Your task to perform on an android device: open app "Google Maps" Image 0: 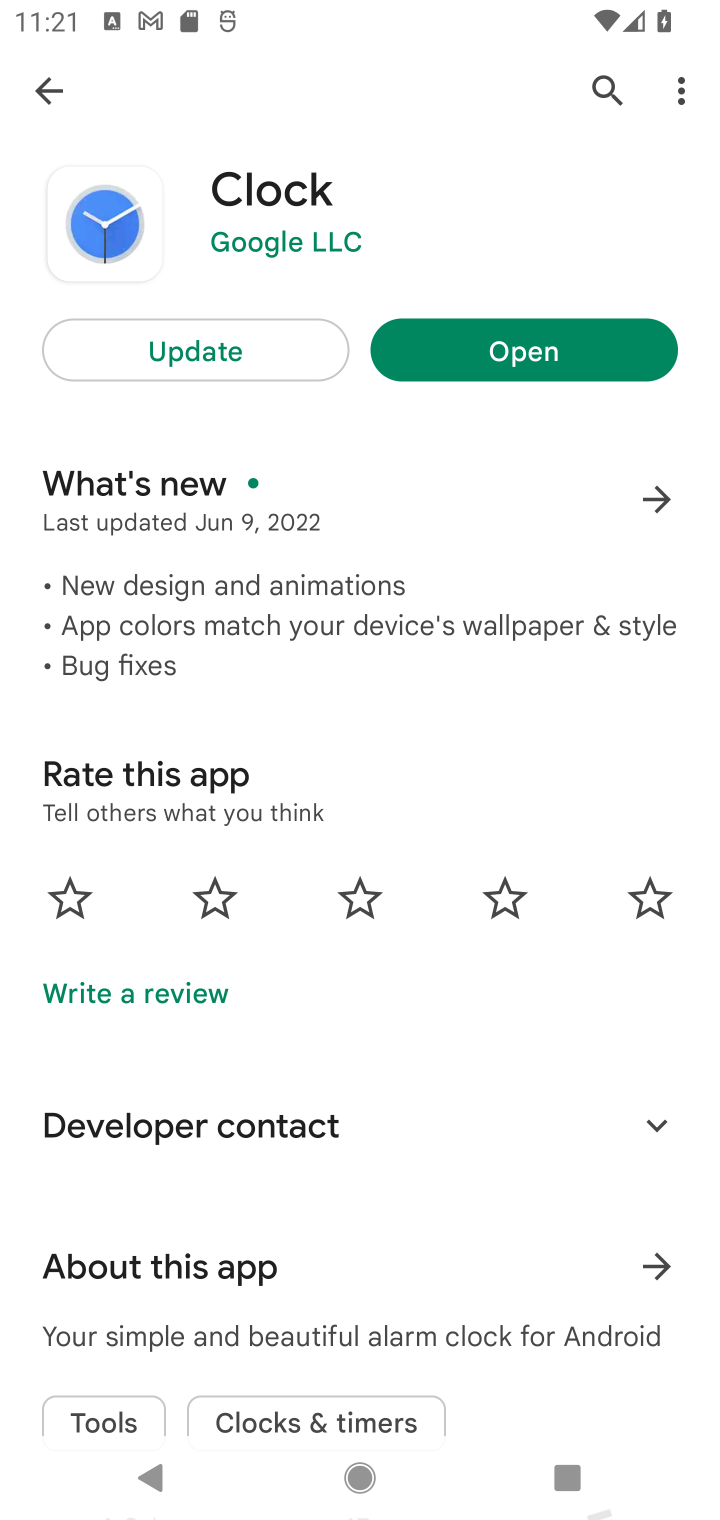
Step 0: press home button
Your task to perform on an android device: open app "Google Maps" Image 1: 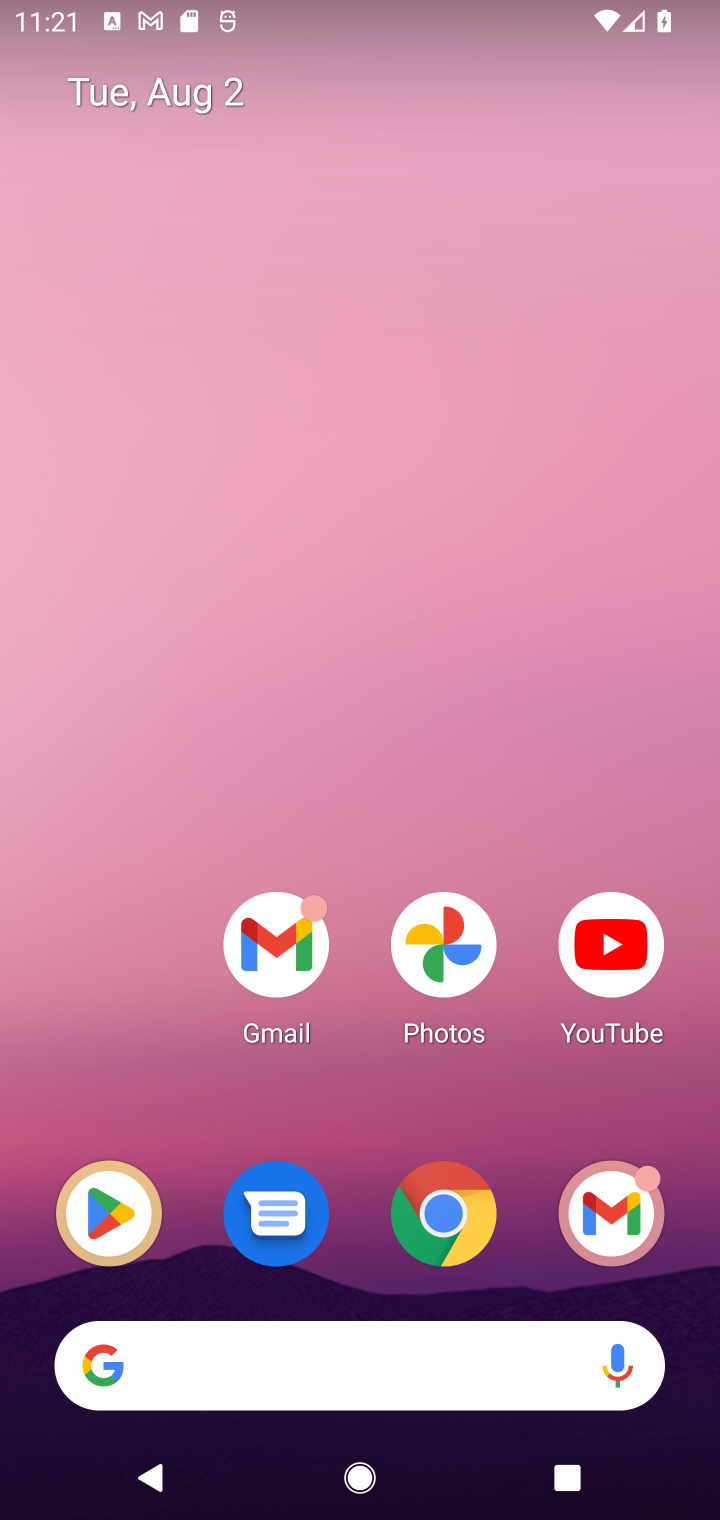
Step 1: drag from (176, 1198) to (196, 437)
Your task to perform on an android device: open app "Google Maps" Image 2: 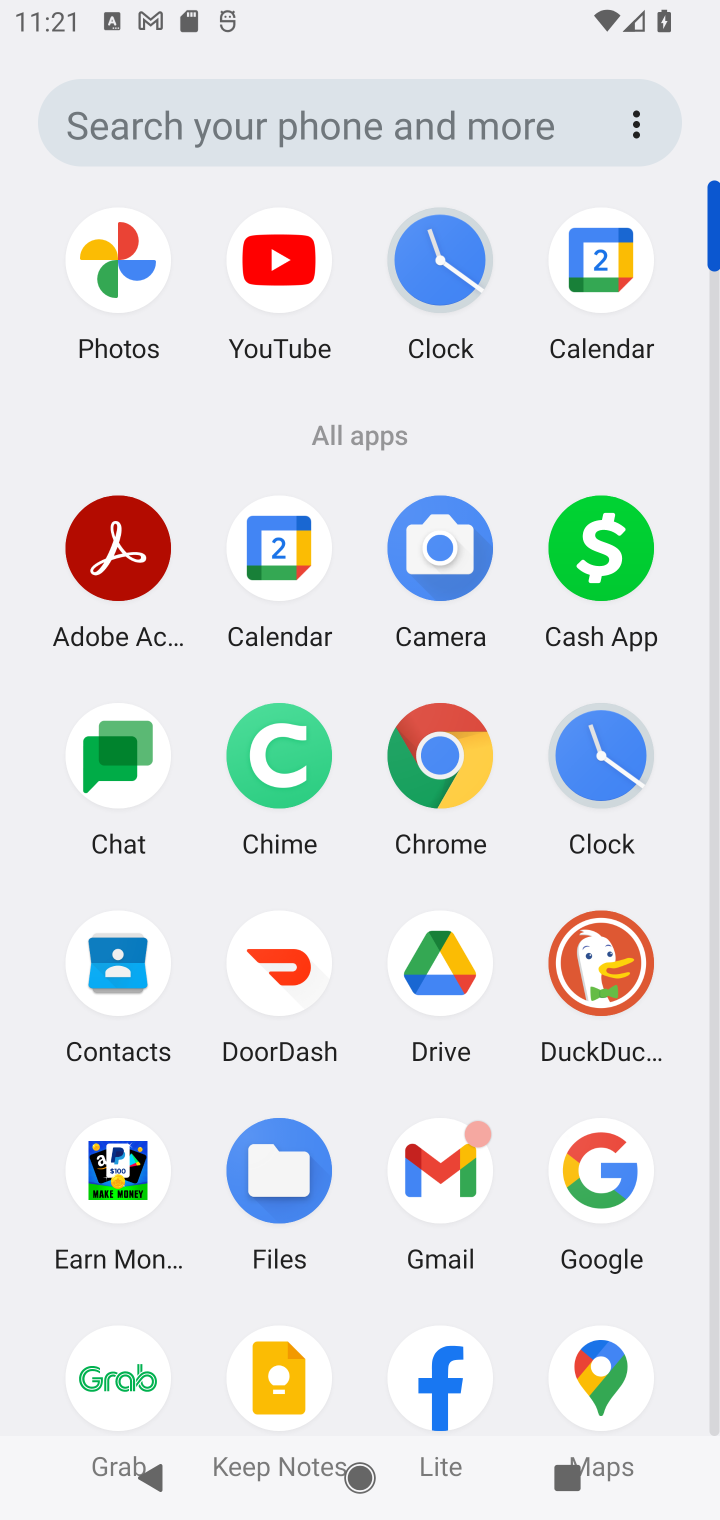
Step 2: click (363, 1263)
Your task to perform on an android device: open app "Google Maps" Image 3: 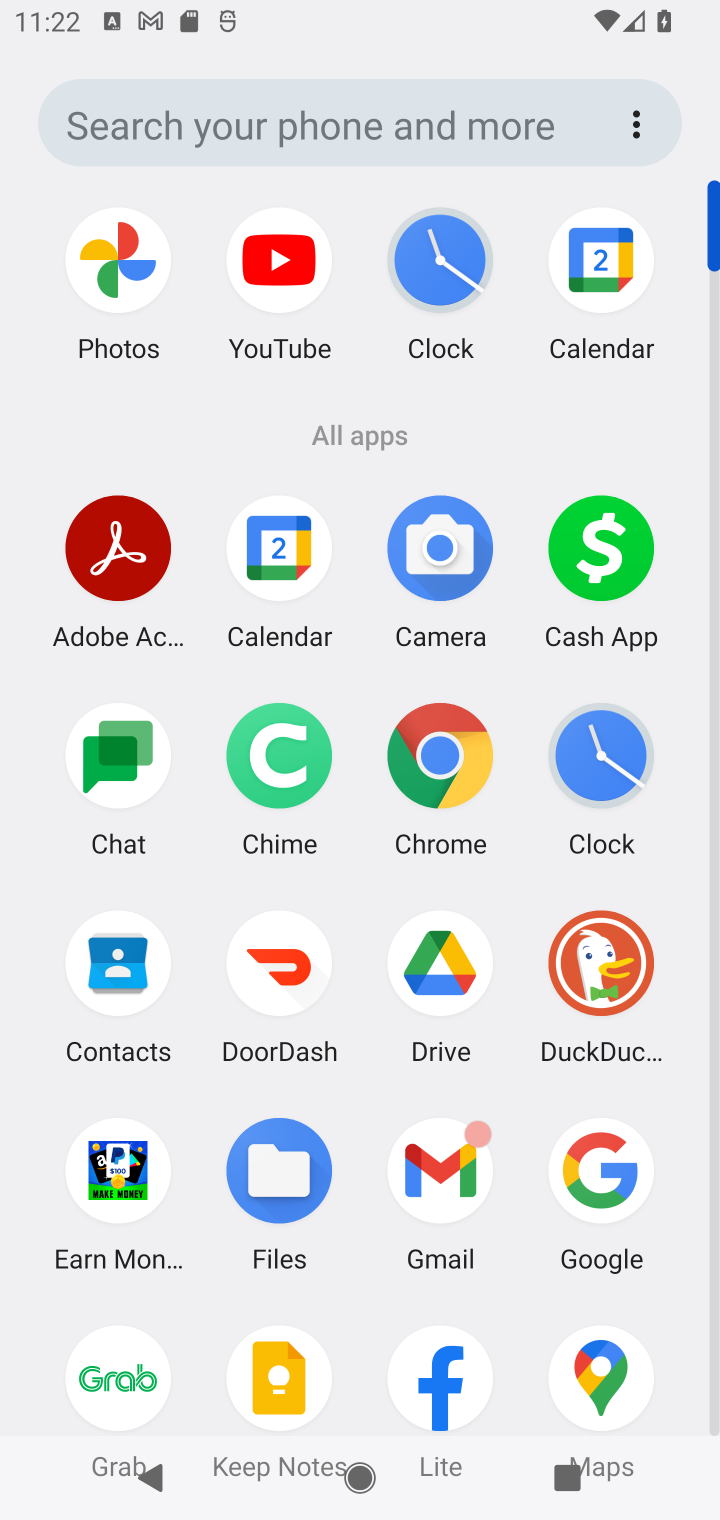
Step 3: drag from (358, 1248) to (349, 467)
Your task to perform on an android device: open app "Google Maps" Image 4: 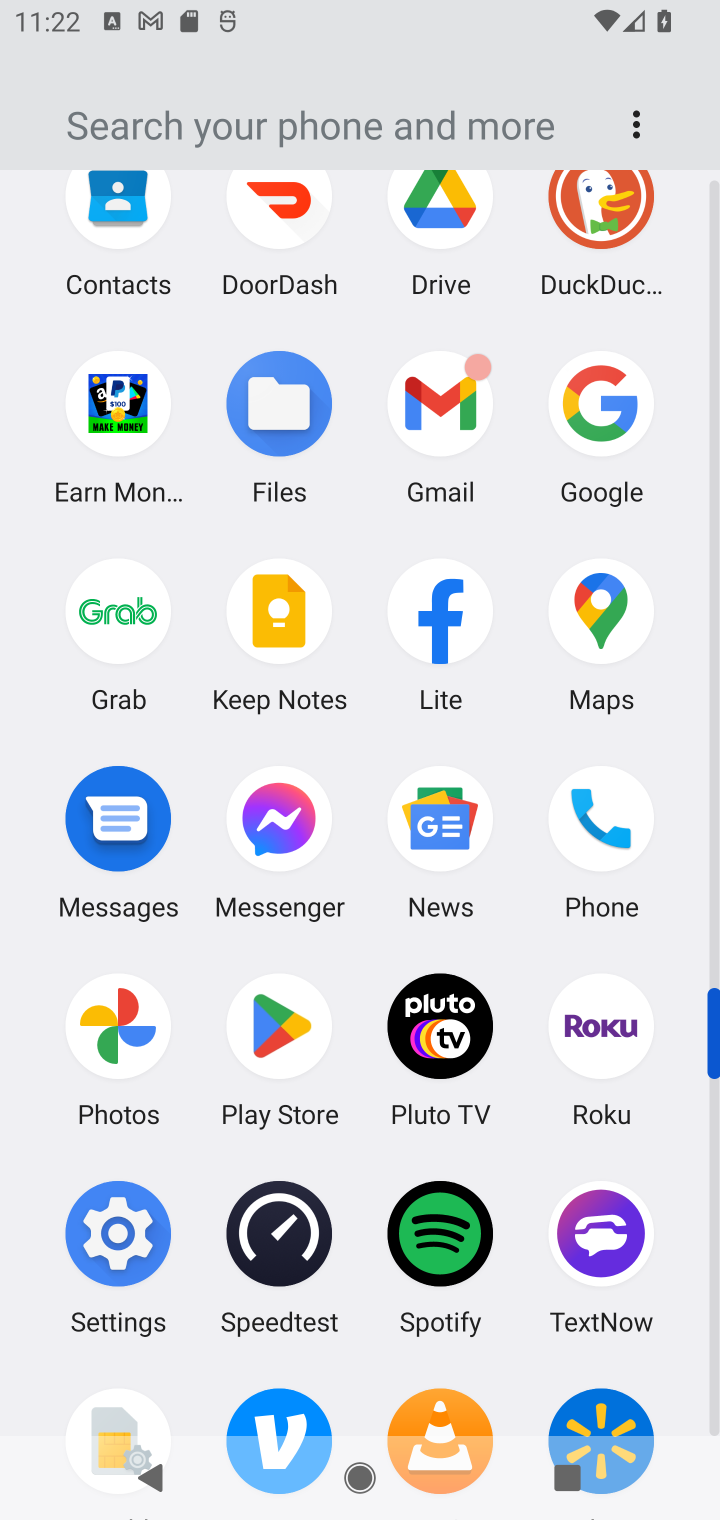
Step 4: click (275, 1040)
Your task to perform on an android device: open app "Google Maps" Image 5: 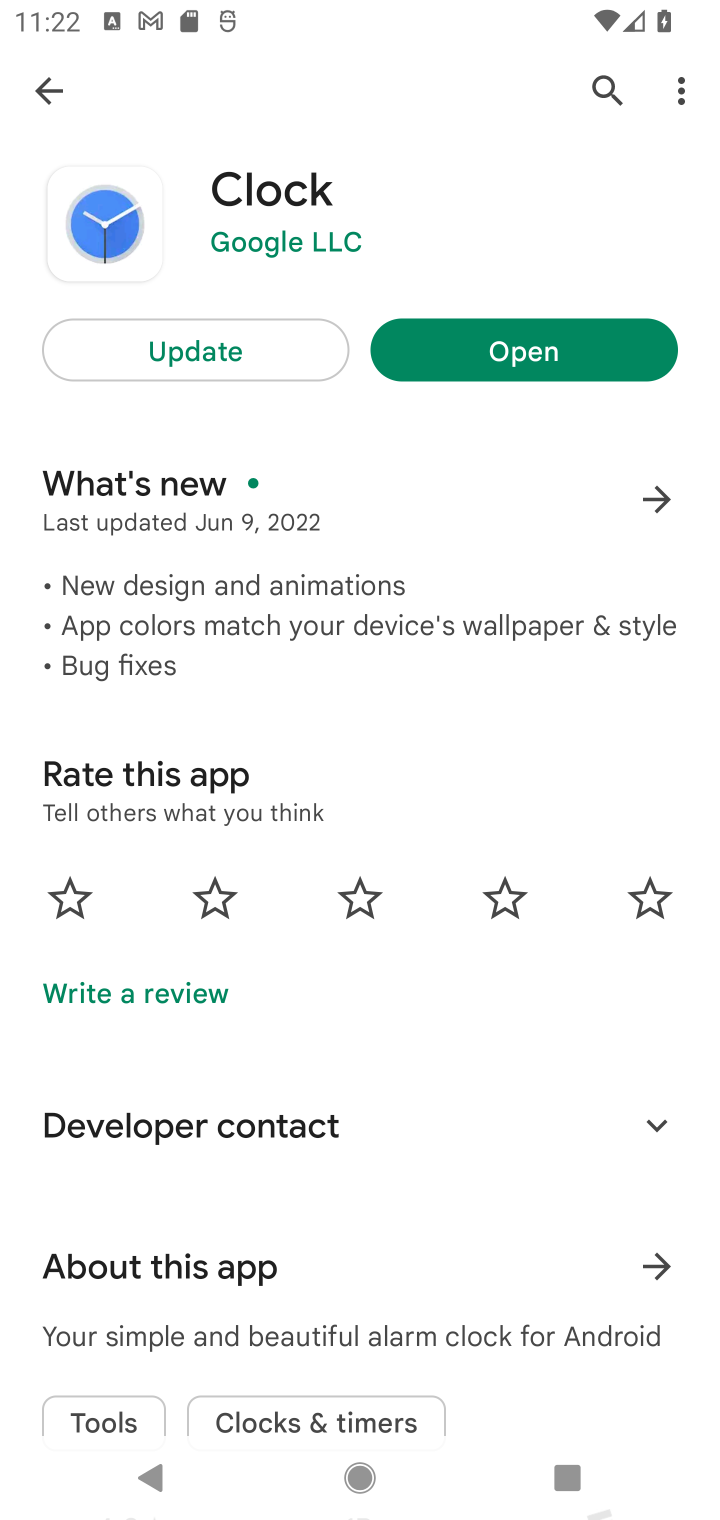
Step 5: click (60, 86)
Your task to perform on an android device: open app "Google Maps" Image 6: 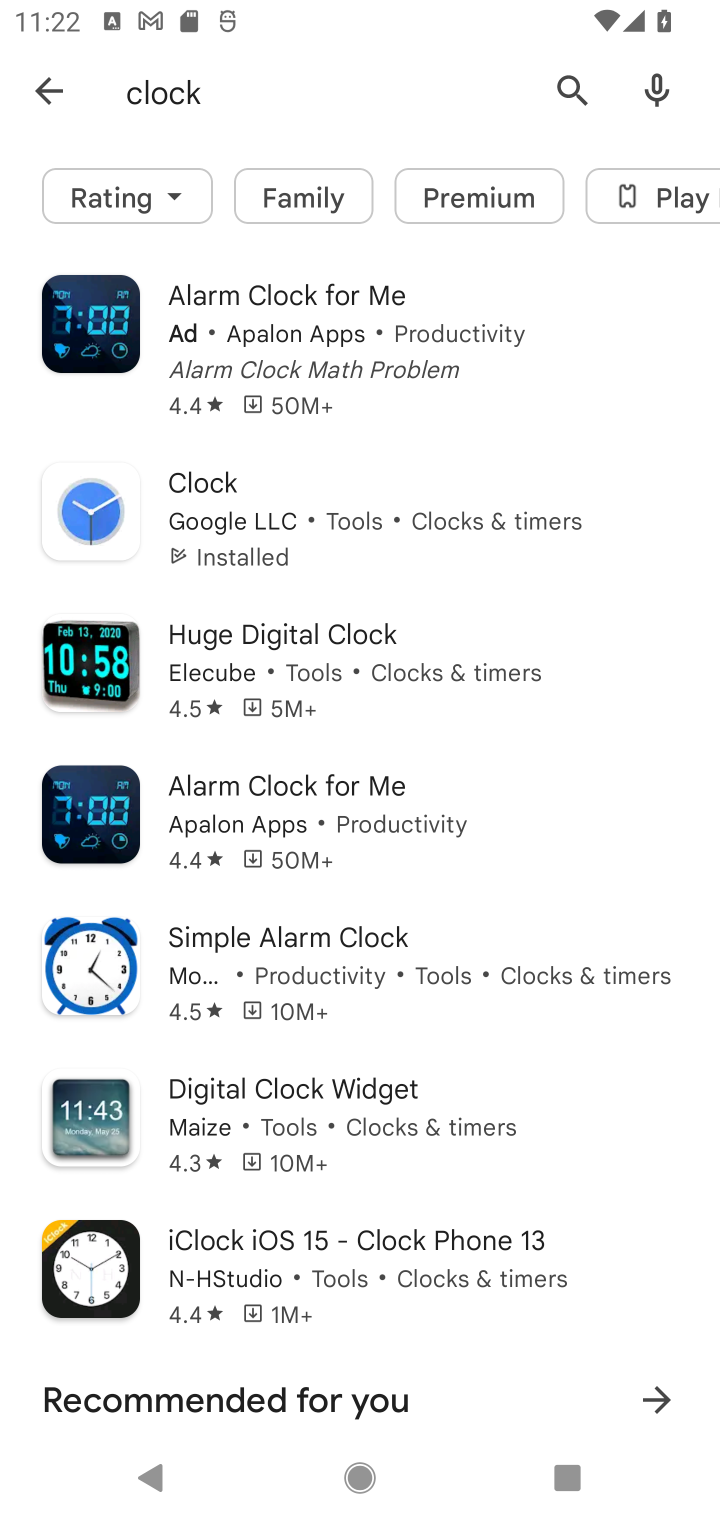
Step 6: click (39, 91)
Your task to perform on an android device: open app "Google Maps" Image 7: 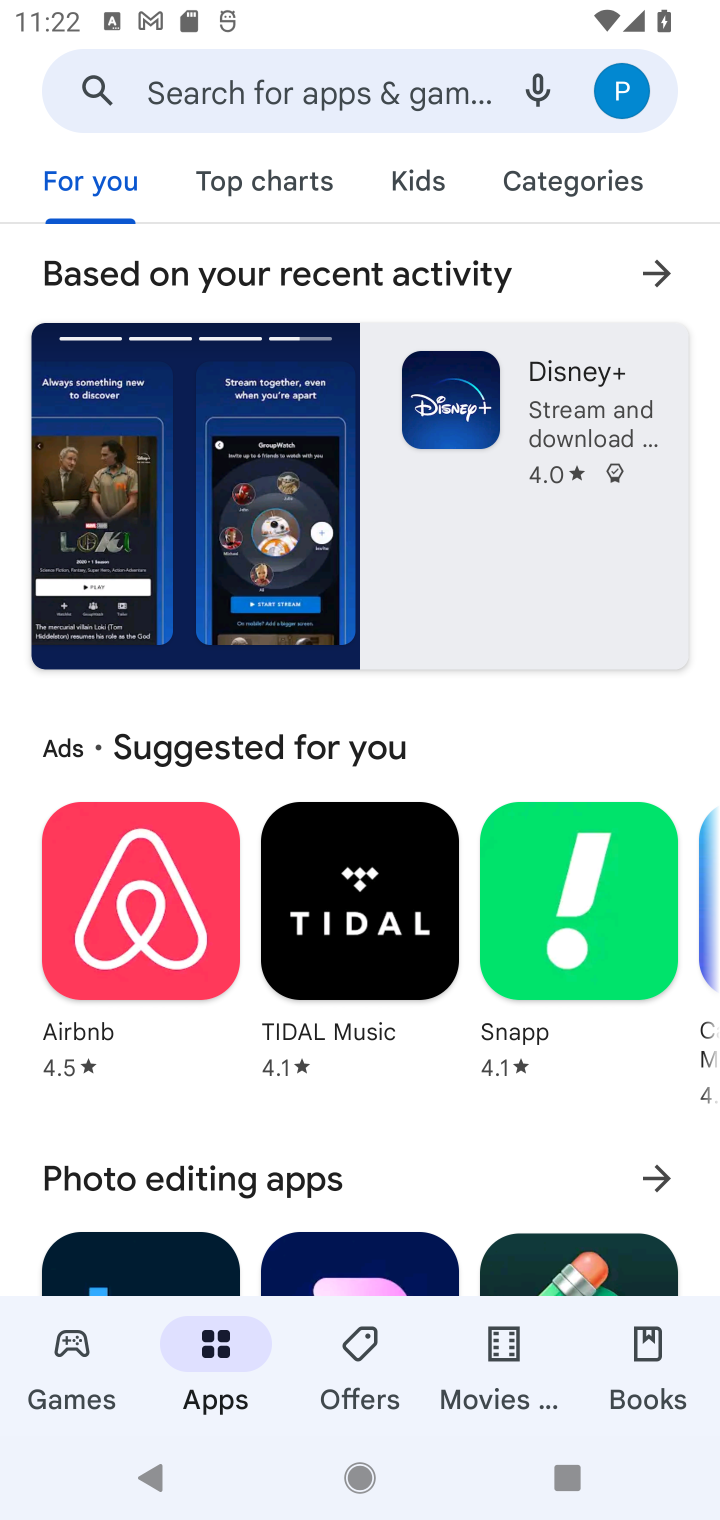
Step 7: click (276, 84)
Your task to perform on an android device: open app "Google Maps" Image 8: 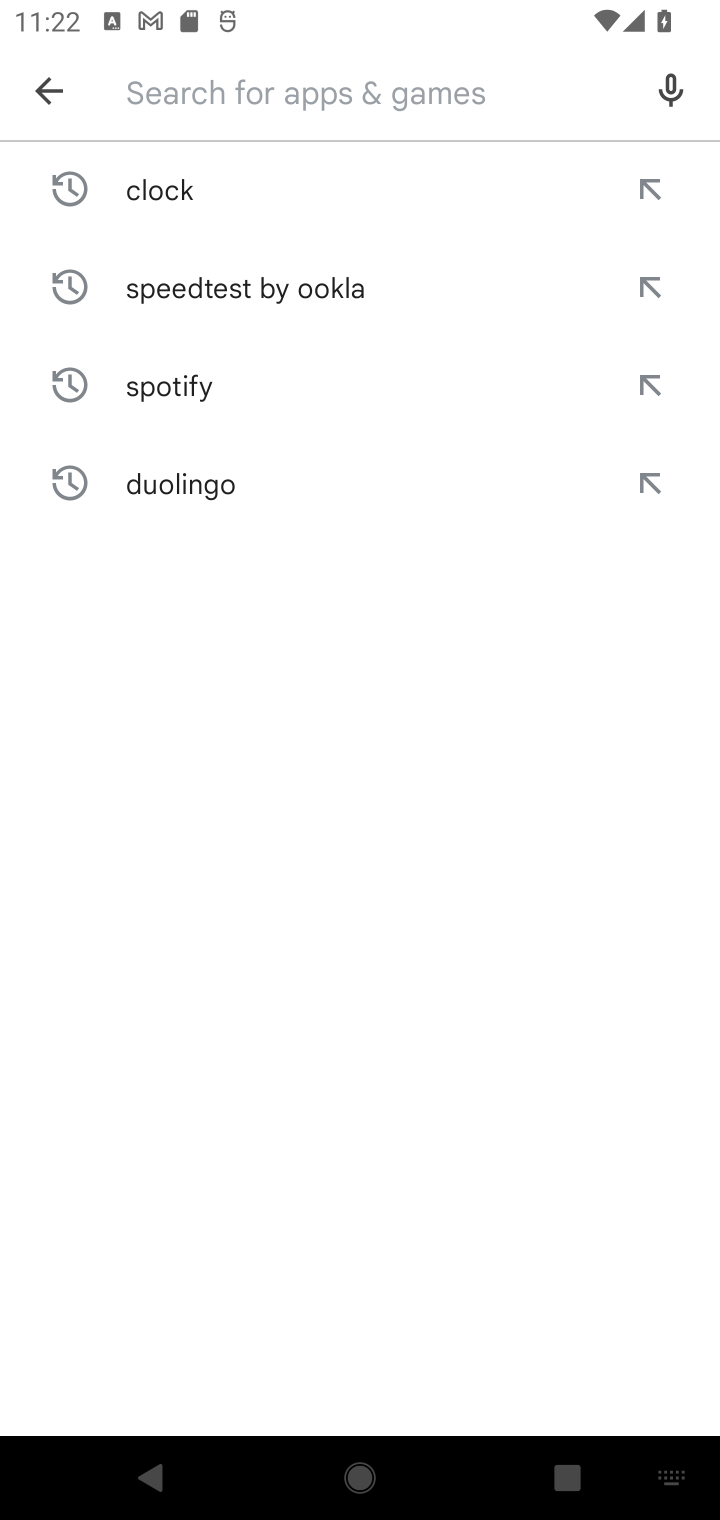
Step 8: type "Google Maps"
Your task to perform on an android device: open app "Google Maps" Image 9: 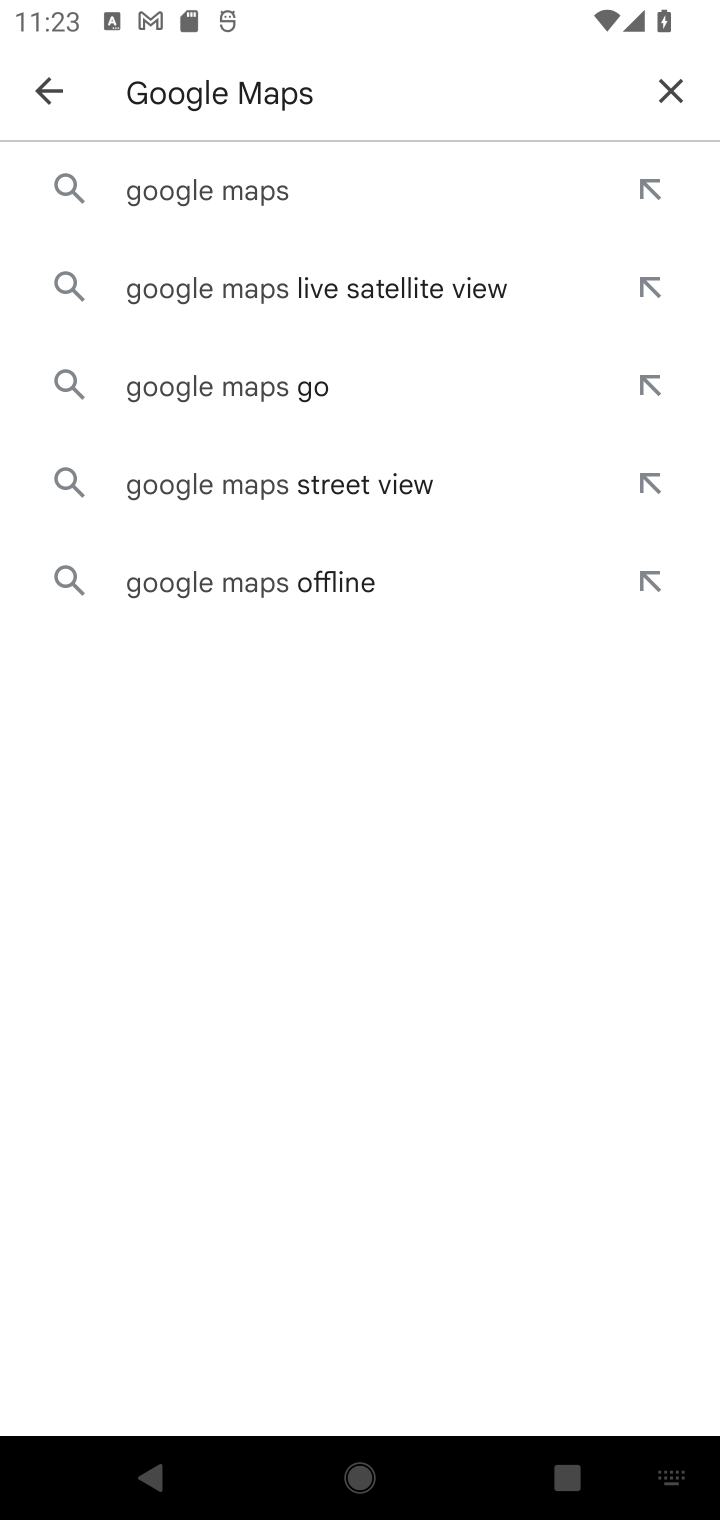
Step 9: click (215, 187)
Your task to perform on an android device: open app "Google Maps" Image 10: 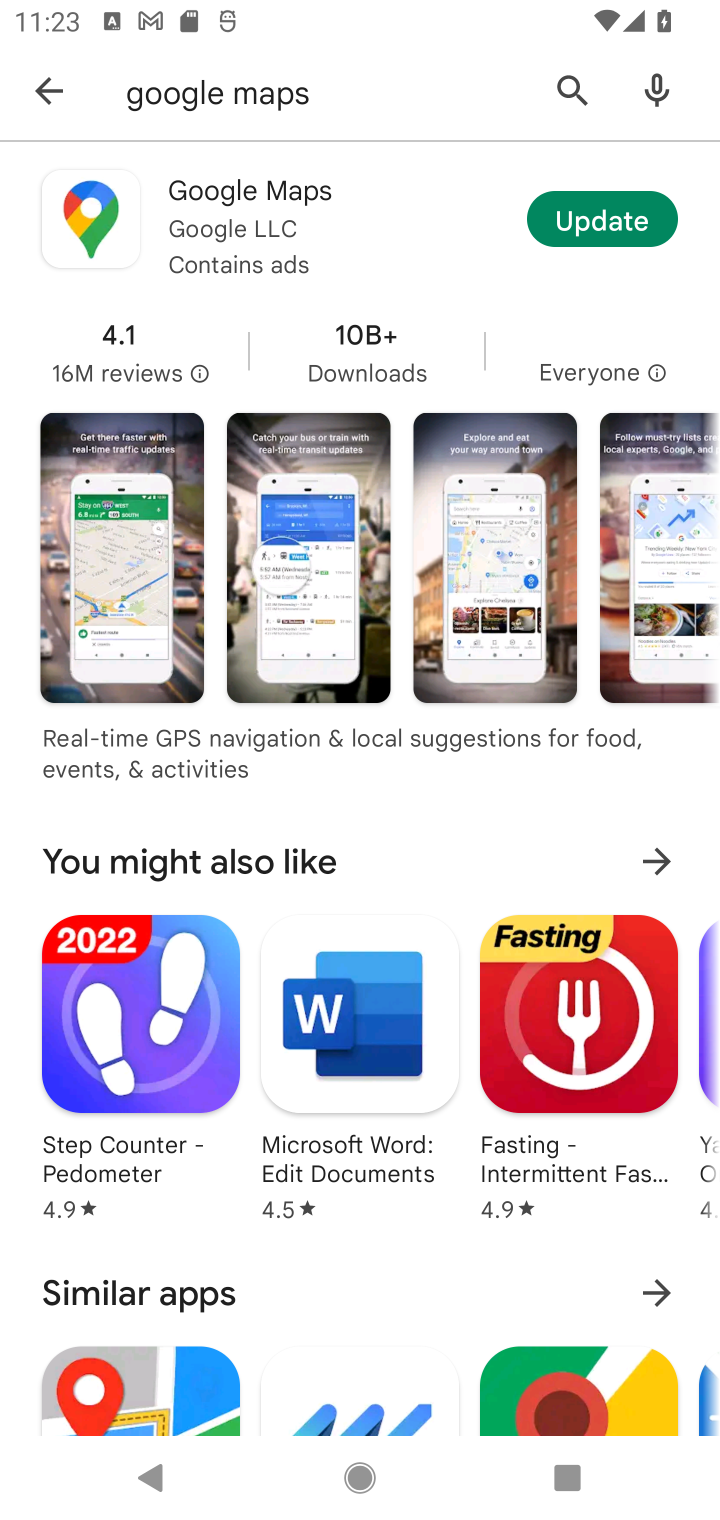
Step 10: click (609, 229)
Your task to perform on an android device: open app "Google Maps" Image 11: 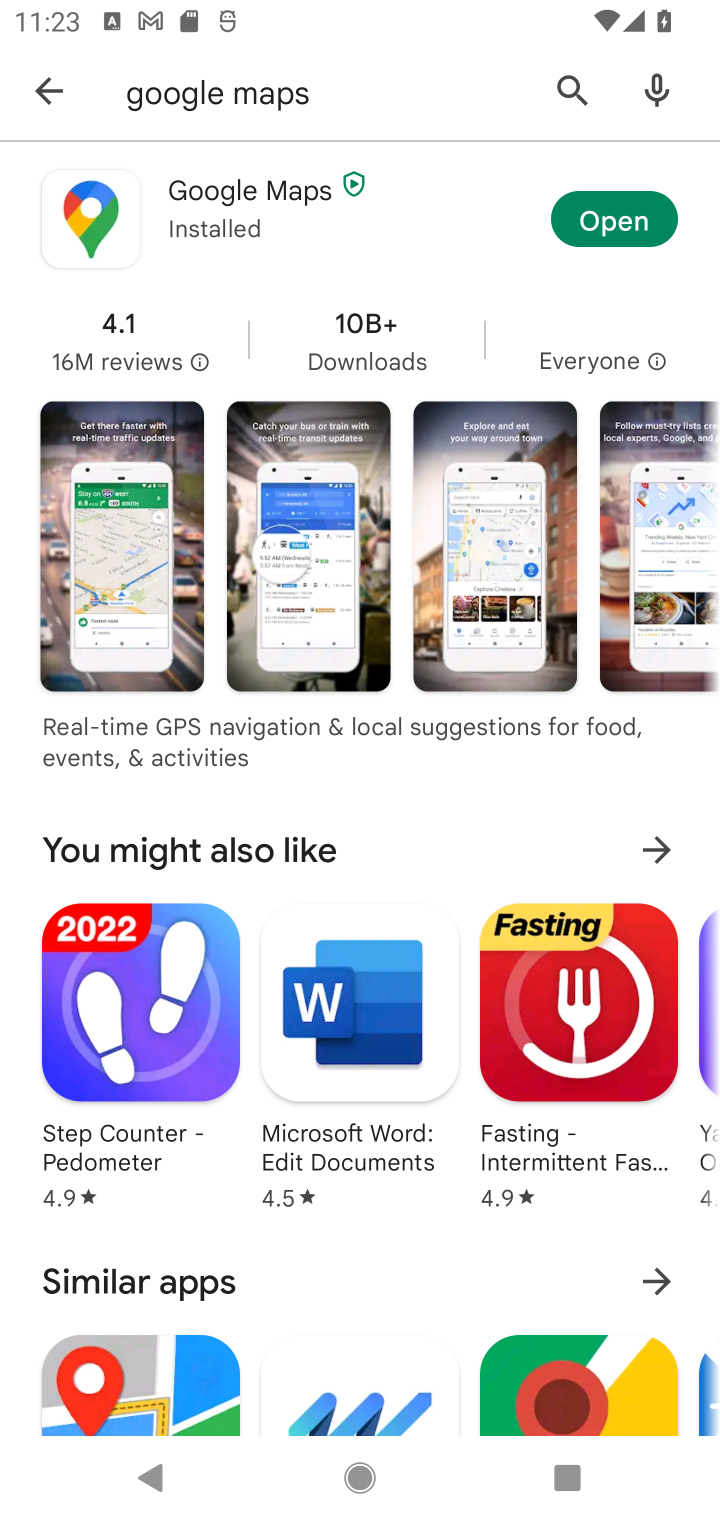
Step 11: click (633, 199)
Your task to perform on an android device: open app "Google Maps" Image 12: 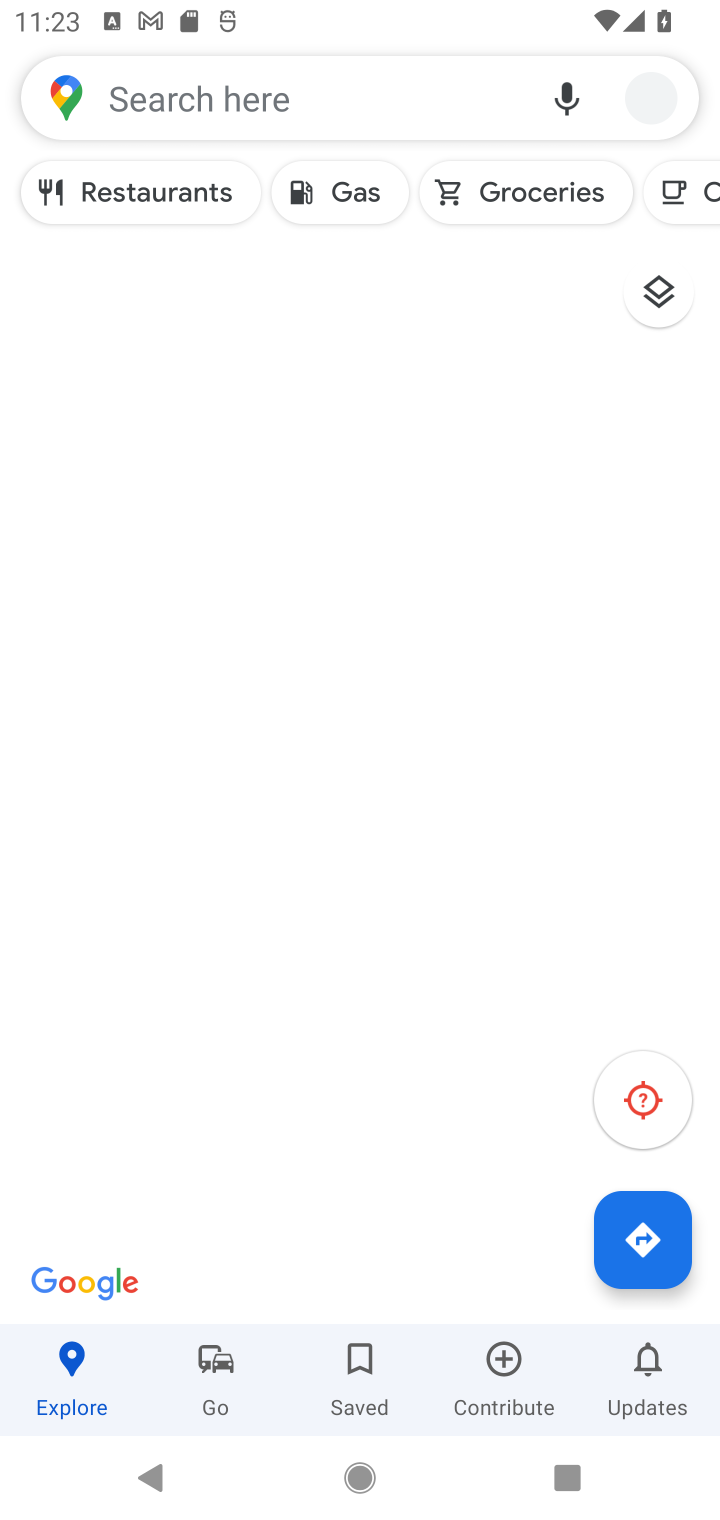
Step 12: task complete